Your task to perform on an android device: Do I have any events this weekend? Image 0: 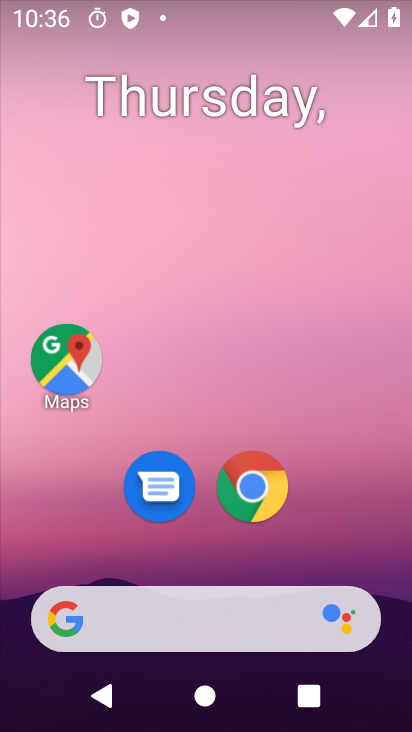
Step 0: drag from (359, 241) to (357, 194)
Your task to perform on an android device: Do I have any events this weekend? Image 1: 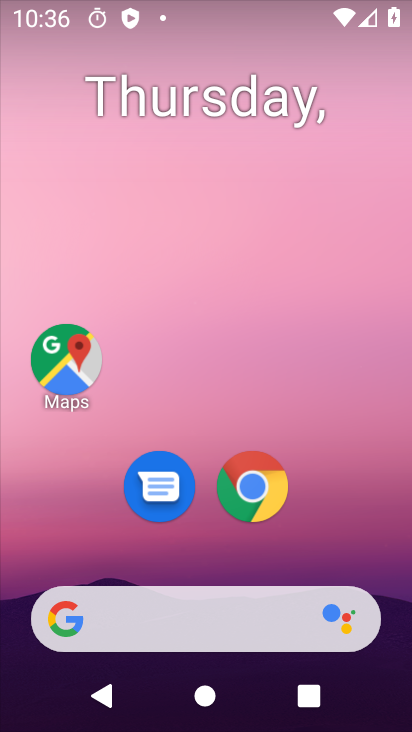
Step 1: drag from (411, 434) to (410, 223)
Your task to perform on an android device: Do I have any events this weekend? Image 2: 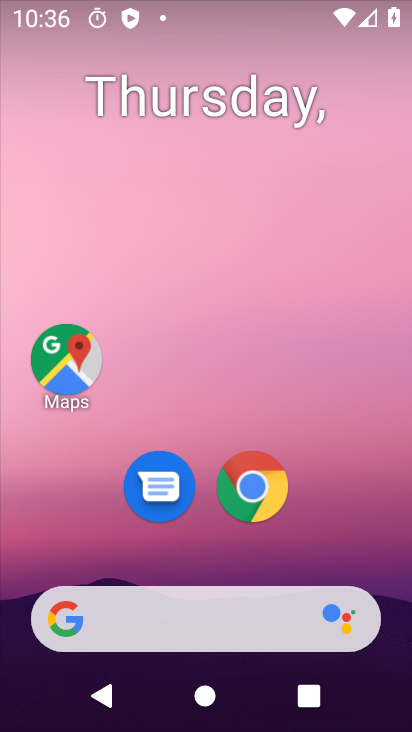
Step 2: drag from (385, 344) to (385, 205)
Your task to perform on an android device: Do I have any events this weekend? Image 3: 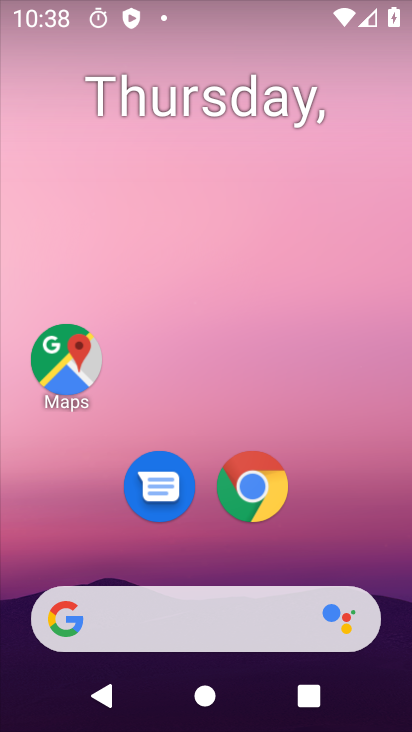
Step 3: click (386, 88)
Your task to perform on an android device: Do I have any events this weekend? Image 4: 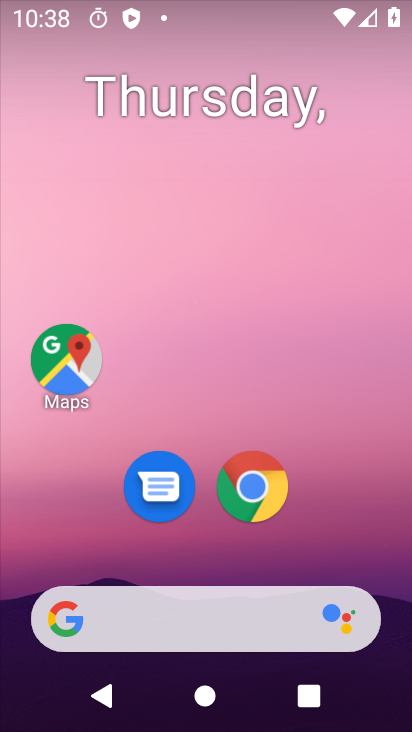
Step 4: drag from (382, 602) to (407, 178)
Your task to perform on an android device: Do I have any events this weekend? Image 5: 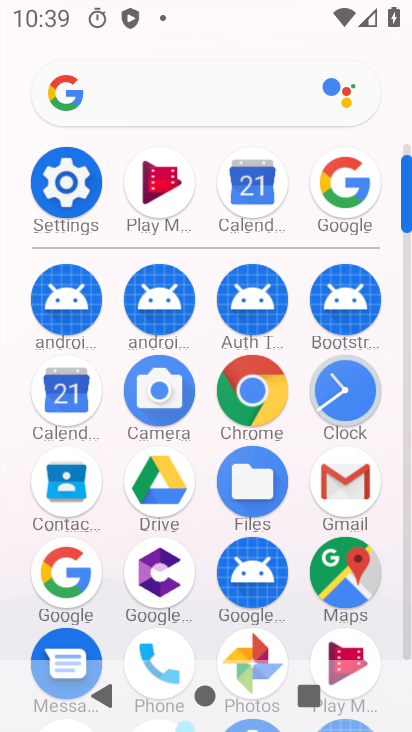
Step 5: click (60, 407)
Your task to perform on an android device: Do I have any events this weekend? Image 6: 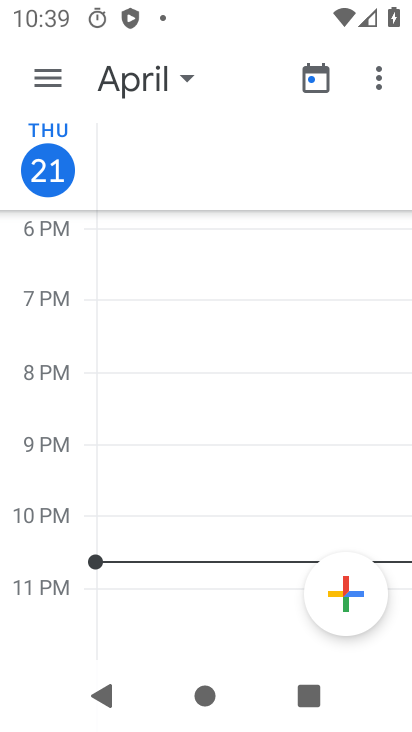
Step 6: click (44, 66)
Your task to perform on an android device: Do I have any events this weekend? Image 7: 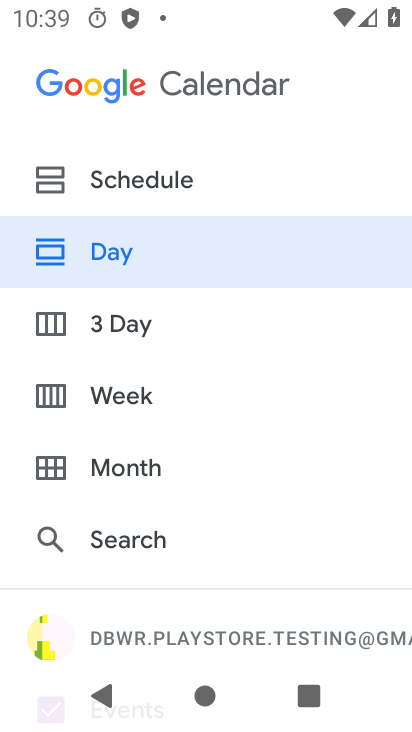
Step 7: click (119, 389)
Your task to perform on an android device: Do I have any events this weekend? Image 8: 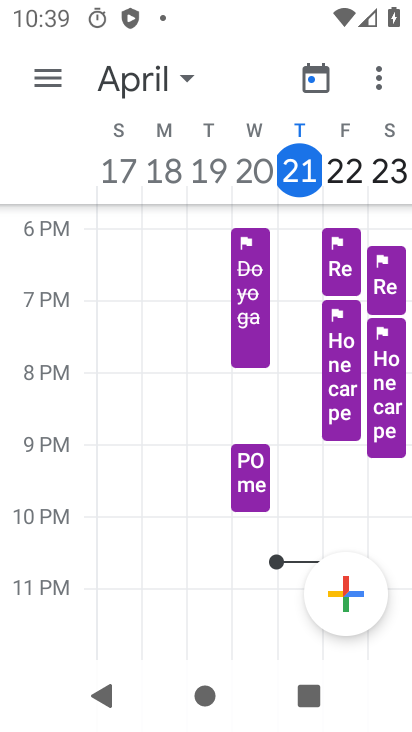
Step 8: click (53, 75)
Your task to perform on an android device: Do I have any events this weekend? Image 9: 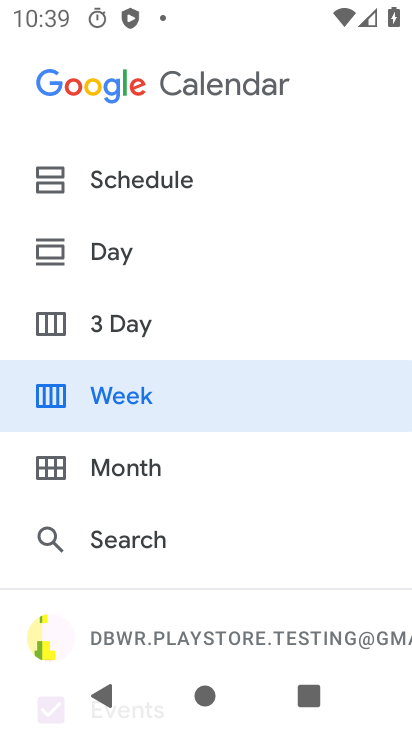
Step 9: click (97, 387)
Your task to perform on an android device: Do I have any events this weekend? Image 10: 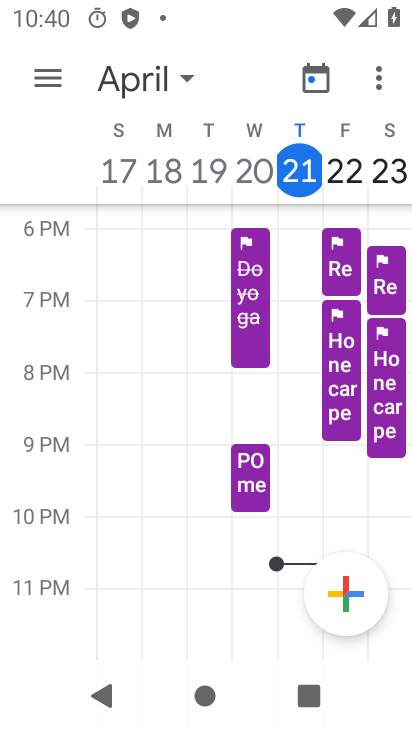
Step 10: task complete